Your task to perform on an android device: open a bookmark in the chrome app Image 0: 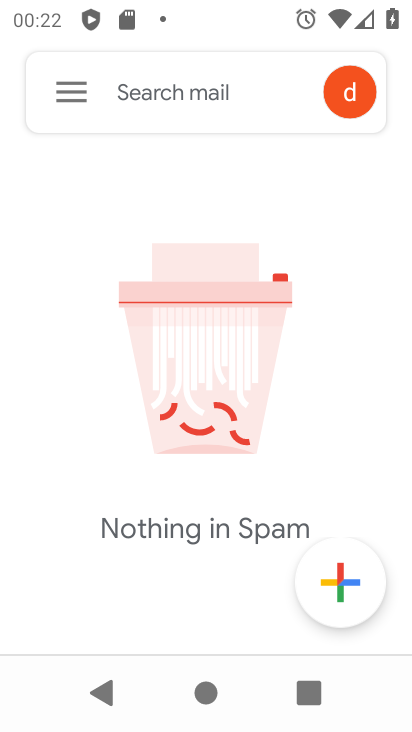
Step 0: drag from (202, 537) to (207, 167)
Your task to perform on an android device: open a bookmark in the chrome app Image 1: 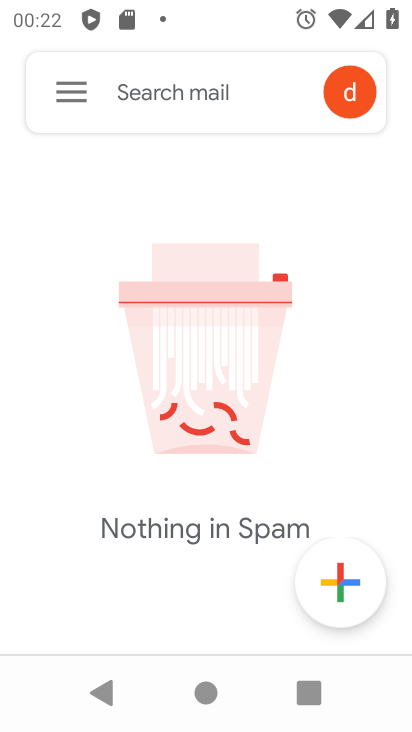
Step 1: press home button
Your task to perform on an android device: open a bookmark in the chrome app Image 2: 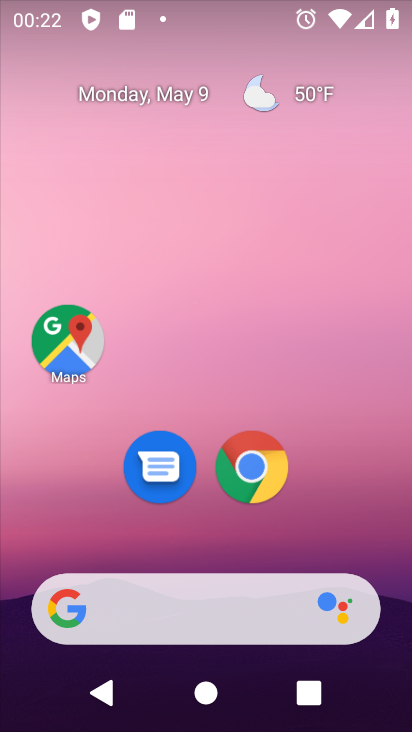
Step 2: drag from (199, 529) to (212, 135)
Your task to perform on an android device: open a bookmark in the chrome app Image 3: 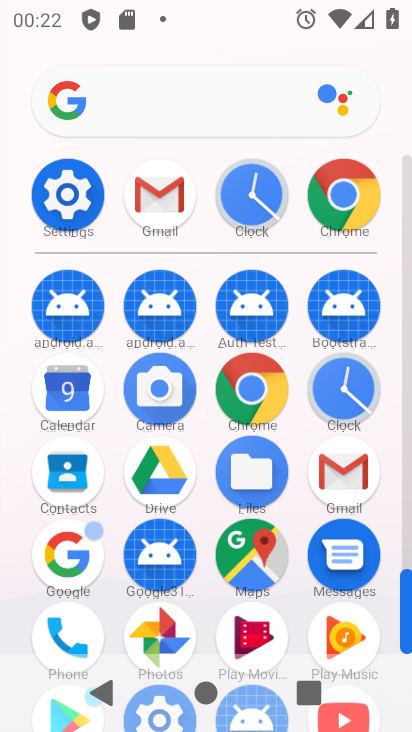
Step 3: click (245, 382)
Your task to perform on an android device: open a bookmark in the chrome app Image 4: 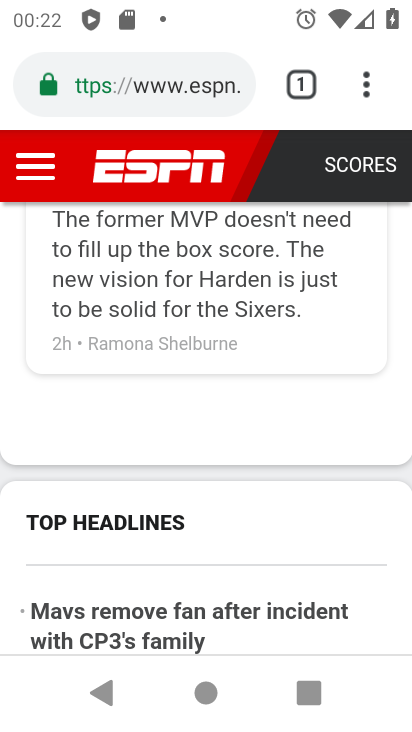
Step 4: click (364, 85)
Your task to perform on an android device: open a bookmark in the chrome app Image 5: 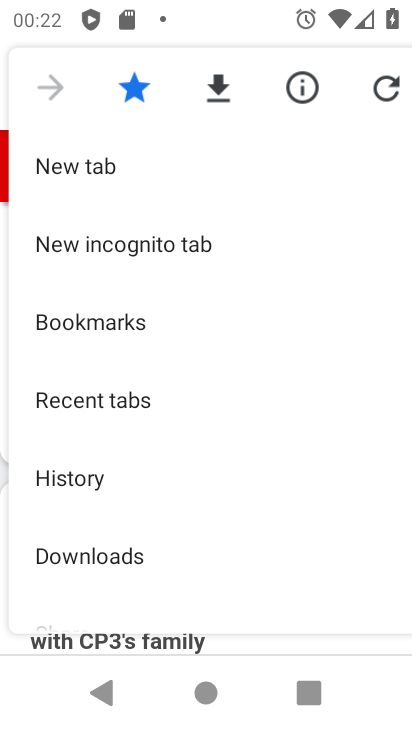
Step 5: click (156, 322)
Your task to perform on an android device: open a bookmark in the chrome app Image 6: 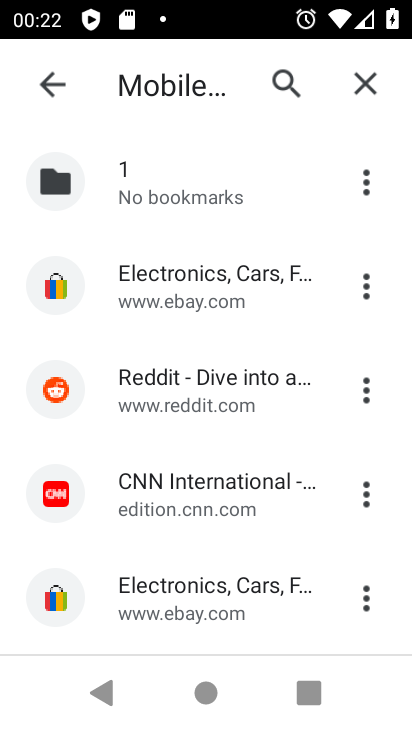
Step 6: click (183, 489)
Your task to perform on an android device: open a bookmark in the chrome app Image 7: 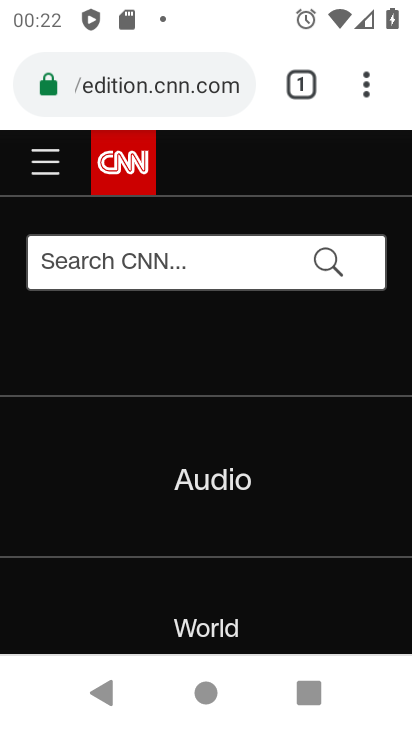
Step 7: task complete